Your task to perform on an android device: turn off javascript in the chrome app Image 0: 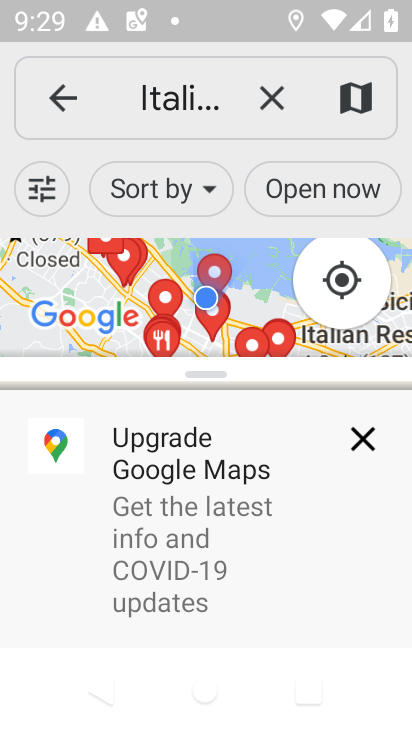
Step 0: press home button
Your task to perform on an android device: turn off javascript in the chrome app Image 1: 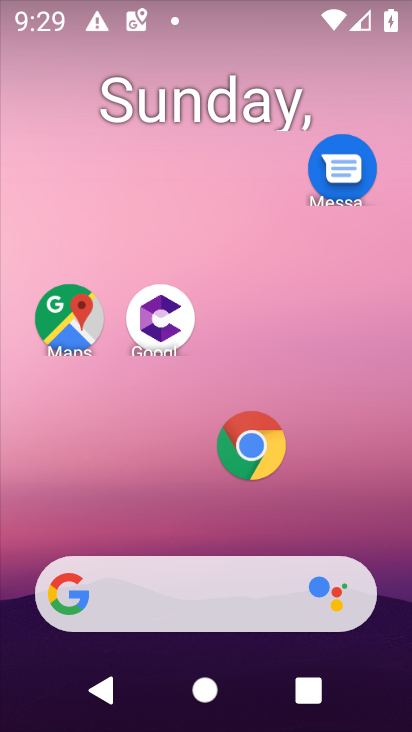
Step 1: click (255, 439)
Your task to perform on an android device: turn off javascript in the chrome app Image 2: 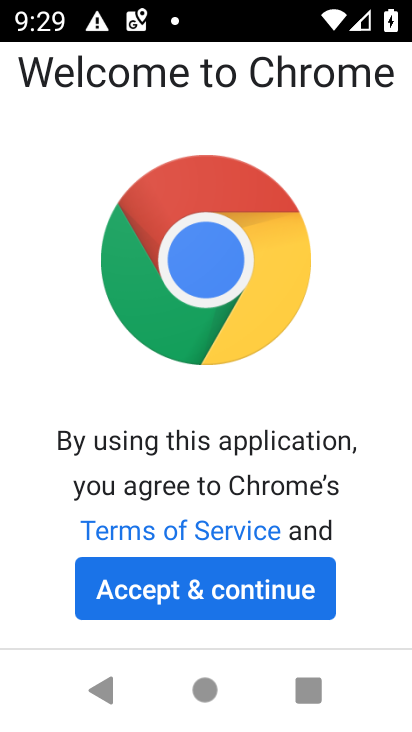
Step 2: click (224, 603)
Your task to perform on an android device: turn off javascript in the chrome app Image 3: 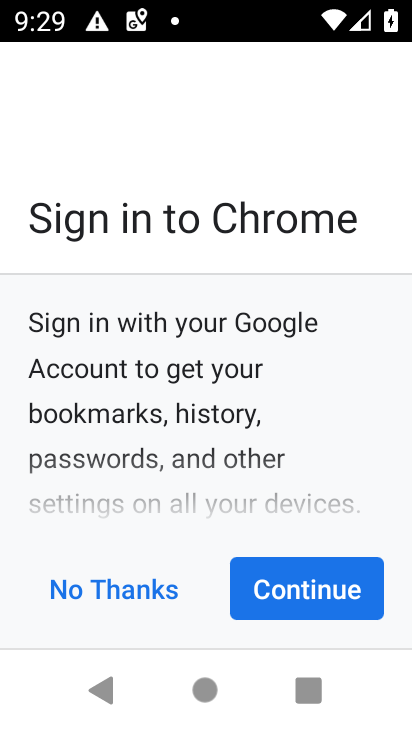
Step 3: click (273, 592)
Your task to perform on an android device: turn off javascript in the chrome app Image 4: 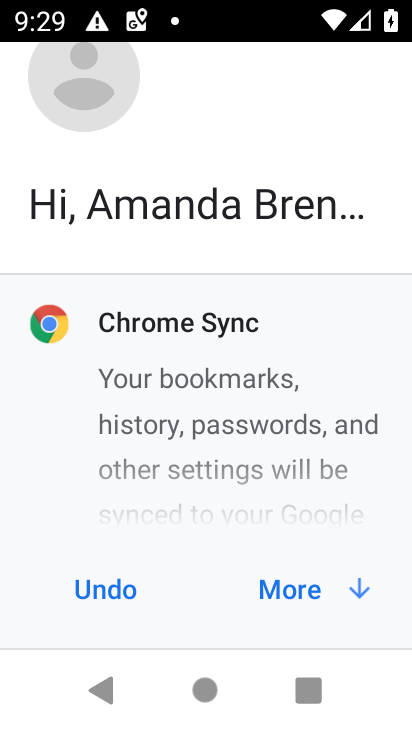
Step 4: click (295, 594)
Your task to perform on an android device: turn off javascript in the chrome app Image 5: 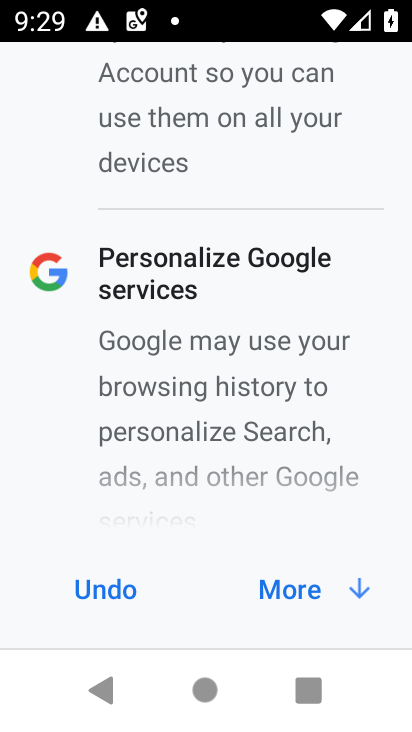
Step 5: click (295, 594)
Your task to perform on an android device: turn off javascript in the chrome app Image 6: 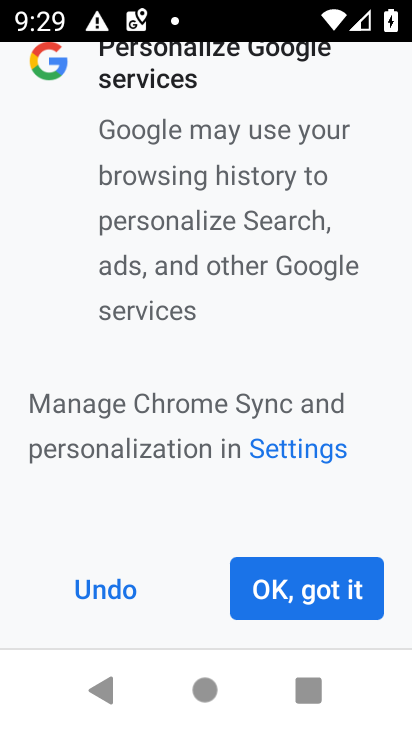
Step 6: click (295, 594)
Your task to perform on an android device: turn off javascript in the chrome app Image 7: 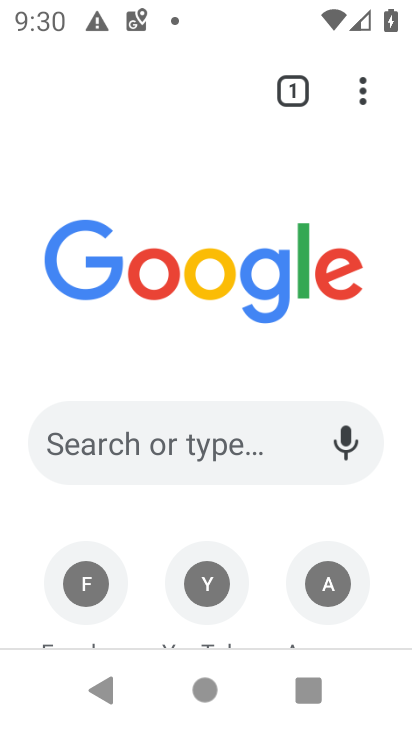
Step 7: click (377, 97)
Your task to perform on an android device: turn off javascript in the chrome app Image 8: 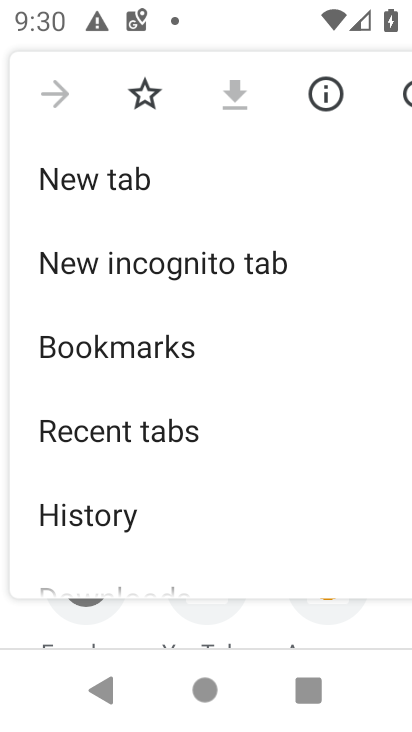
Step 8: drag from (129, 550) to (107, 309)
Your task to perform on an android device: turn off javascript in the chrome app Image 9: 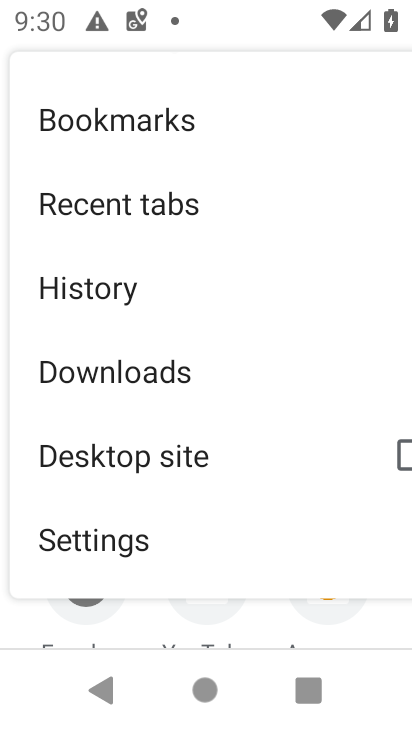
Step 9: click (142, 536)
Your task to perform on an android device: turn off javascript in the chrome app Image 10: 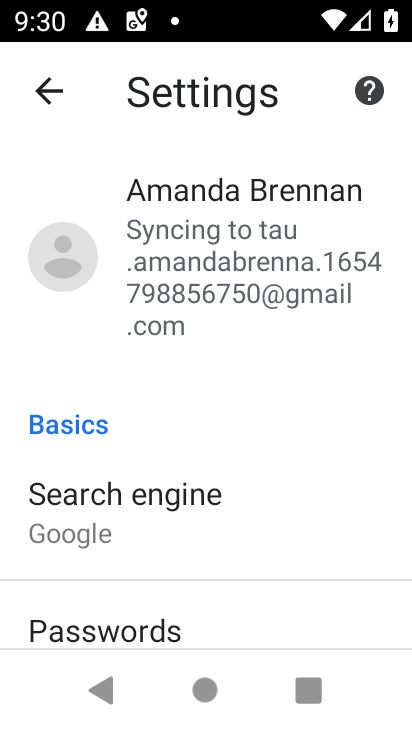
Step 10: task complete